Your task to perform on an android device: read, delete, or share a saved page in the chrome app Image 0: 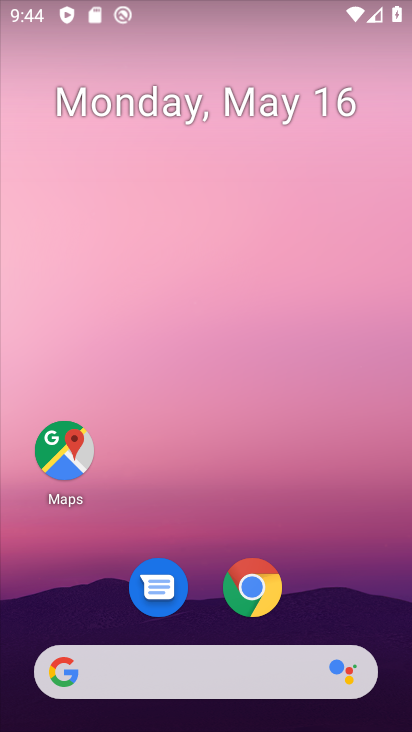
Step 0: click (237, 594)
Your task to perform on an android device: read, delete, or share a saved page in the chrome app Image 1: 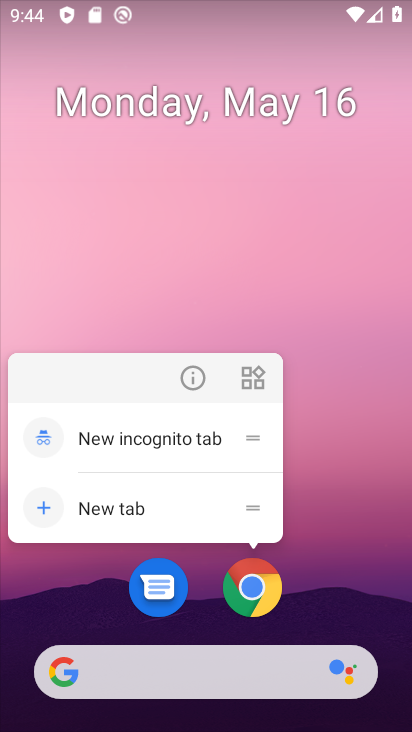
Step 1: click (243, 592)
Your task to perform on an android device: read, delete, or share a saved page in the chrome app Image 2: 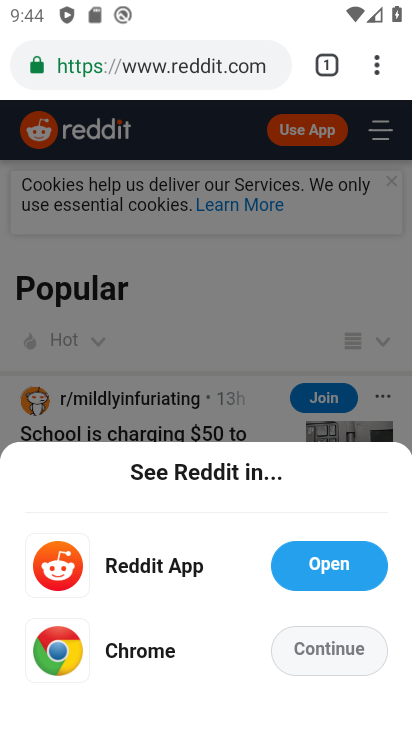
Step 2: click (377, 75)
Your task to perform on an android device: read, delete, or share a saved page in the chrome app Image 3: 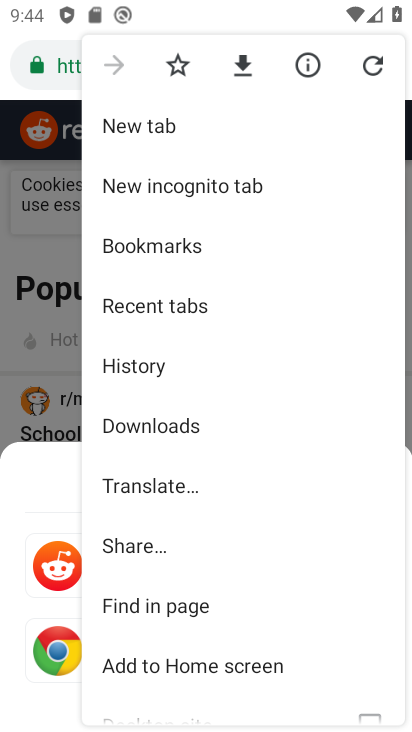
Step 3: click (160, 417)
Your task to perform on an android device: read, delete, or share a saved page in the chrome app Image 4: 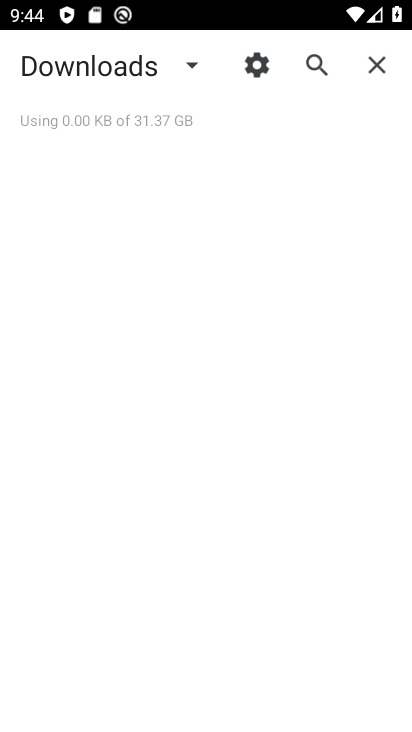
Step 4: task complete